Your task to perform on an android device: add a label to a message in the gmail app Image 0: 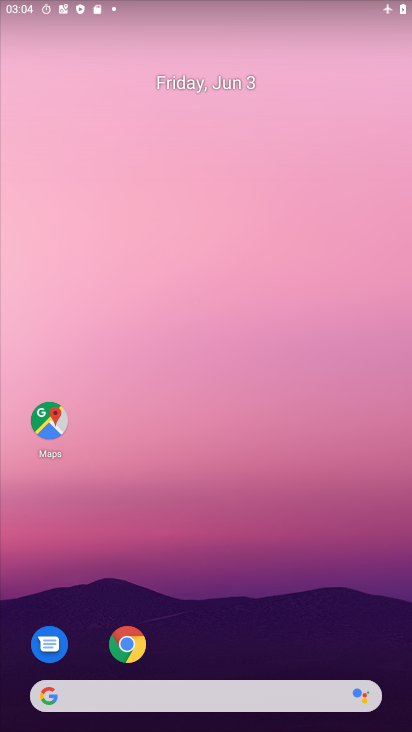
Step 0: drag from (207, 634) to (282, 212)
Your task to perform on an android device: add a label to a message in the gmail app Image 1: 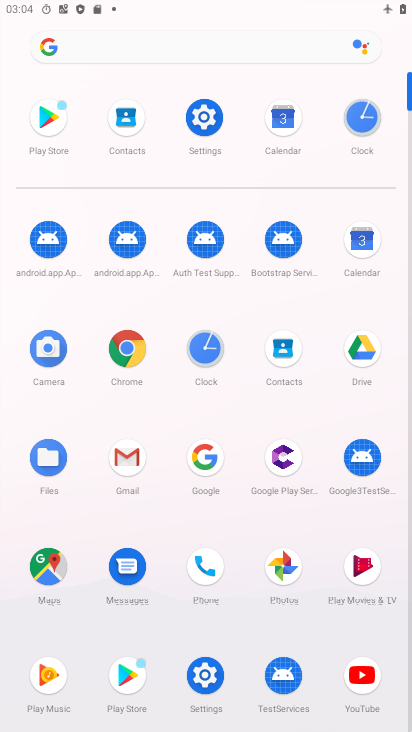
Step 1: click (129, 455)
Your task to perform on an android device: add a label to a message in the gmail app Image 2: 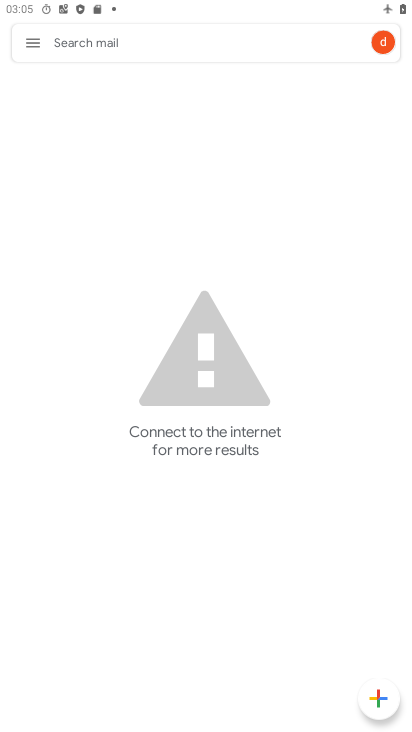
Step 2: task complete